Your task to perform on an android device: turn pop-ups on in chrome Image 0: 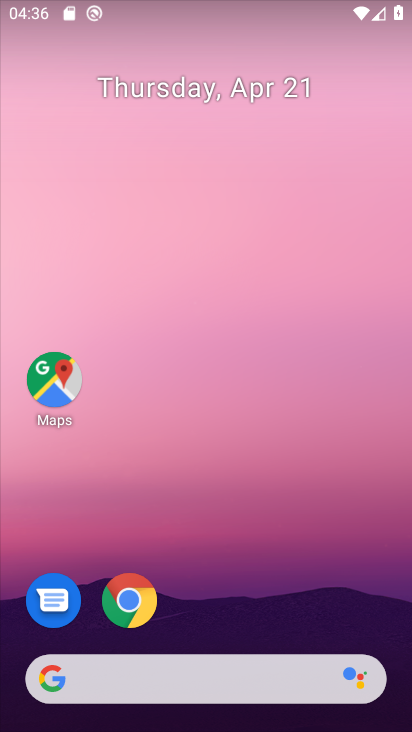
Step 0: click (130, 603)
Your task to perform on an android device: turn pop-ups on in chrome Image 1: 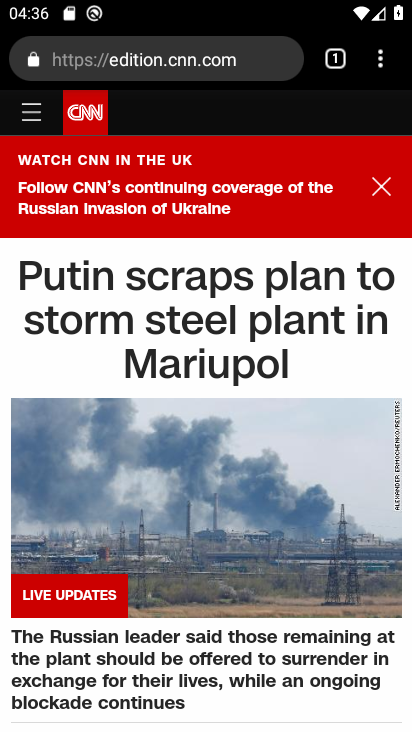
Step 1: click (383, 63)
Your task to perform on an android device: turn pop-ups on in chrome Image 2: 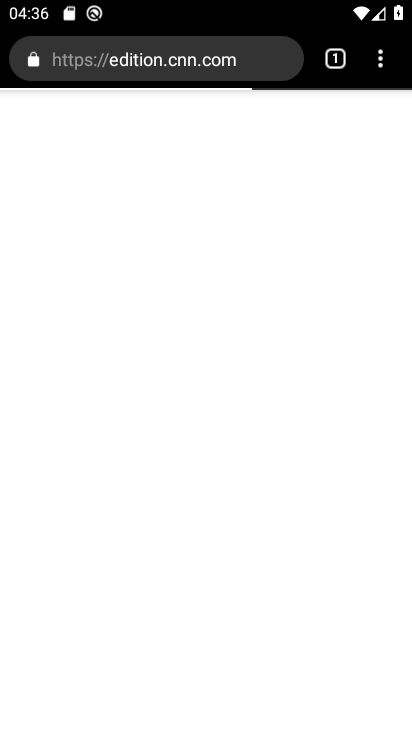
Step 2: click (384, 58)
Your task to perform on an android device: turn pop-ups on in chrome Image 3: 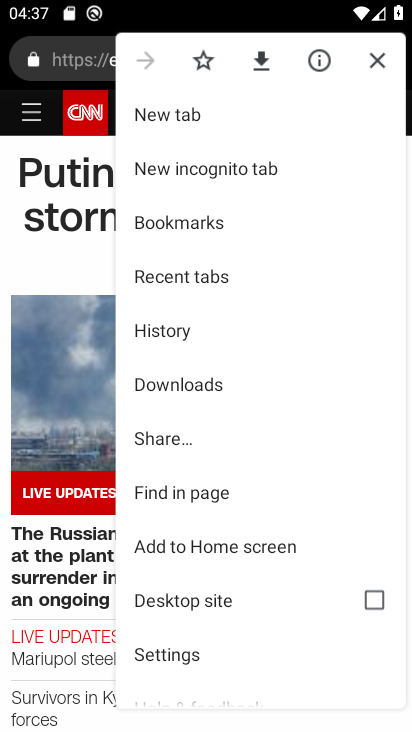
Step 3: drag from (199, 610) to (187, 290)
Your task to perform on an android device: turn pop-ups on in chrome Image 4: 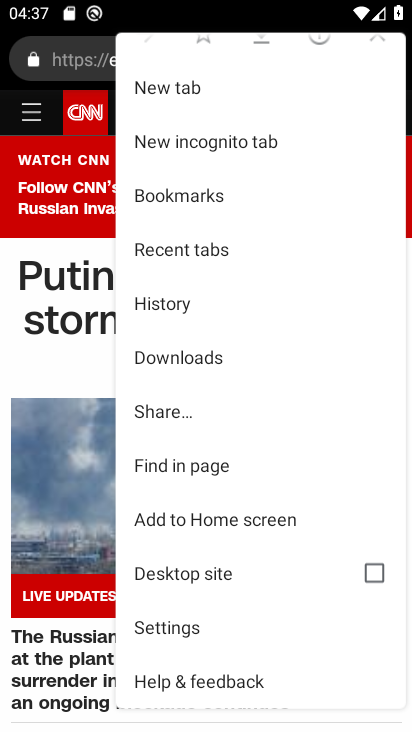
Step 4: click (170, 630)
Your task to perform on an android device: turn pop-ups on in chrome Image 5: 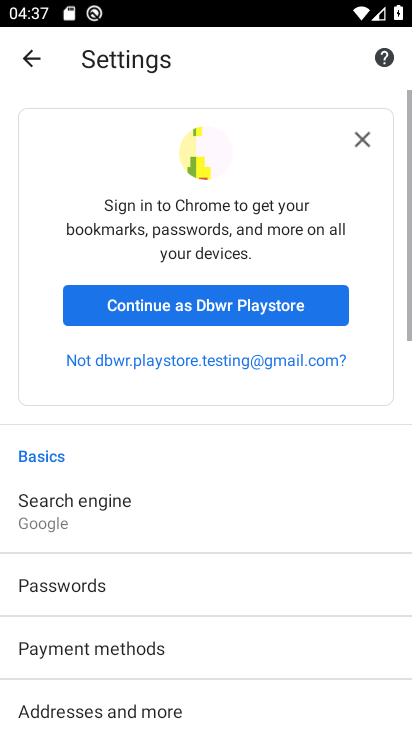
Step 5: drag from (204, 607) to (188, 202)
Your task to perform on an android device: turn pop-ups on in chrome Image 6: 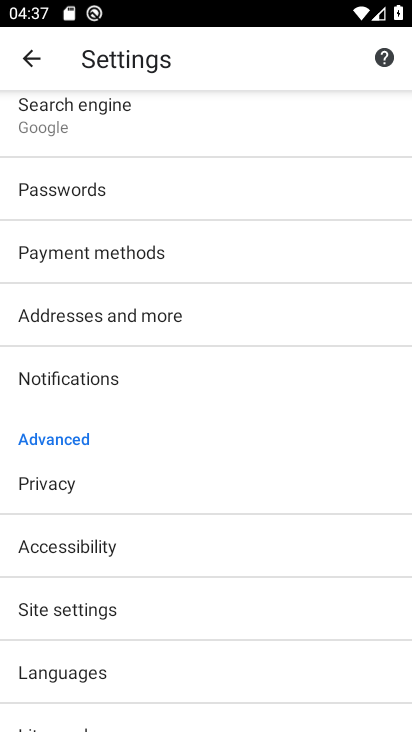
Step 6: click (64, 613)
Your task to perform on an android device: turn pop-ups on in chrome Image 7: 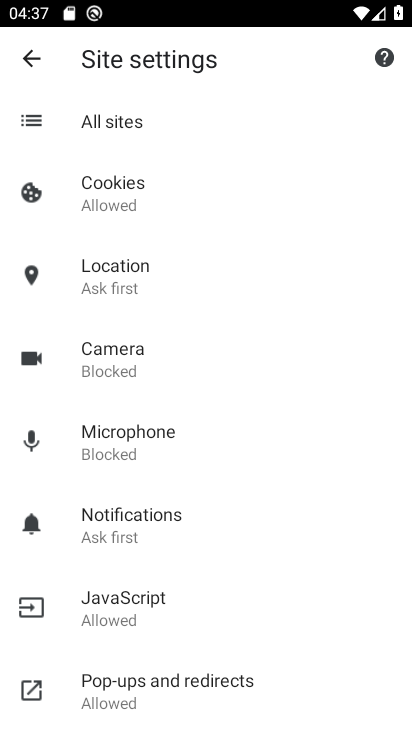
Step 7: click (134, 680)
Your task to perform on an android device: turn pop-ups on in chrome Image 8: 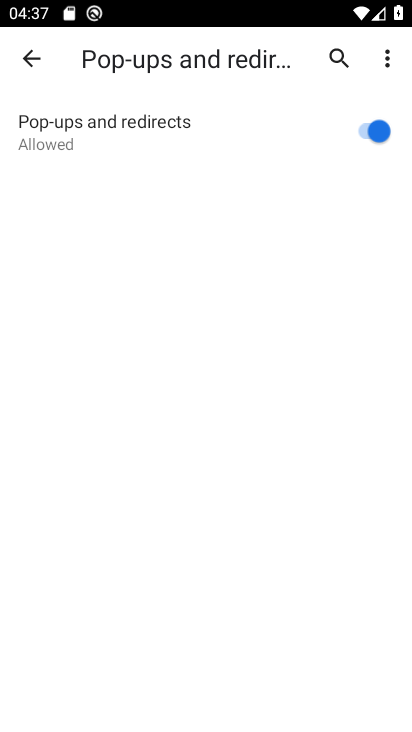
Step 8: task complete